Your task to perform on an android device: create a new album in the google photos Image 0: 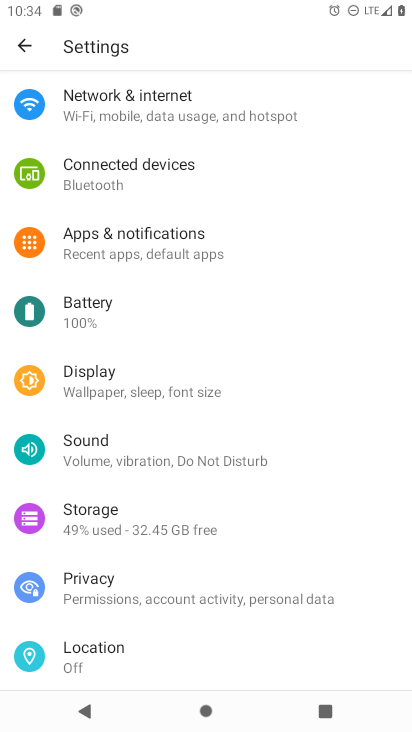
Step 0: press home button
Your task to perform on an android device: create a new album in the google photos Image 1: 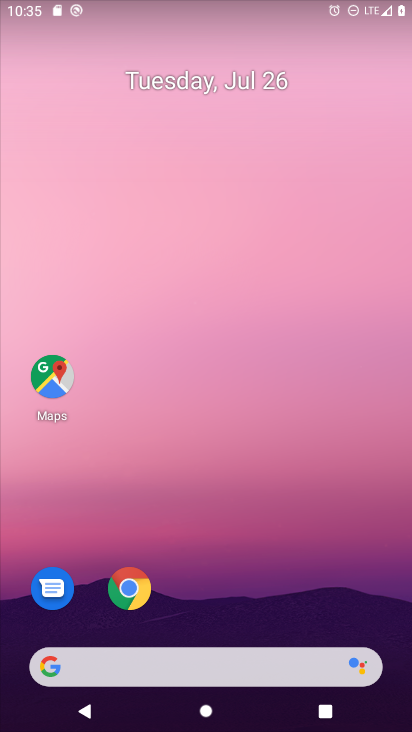
Step 1: drag from (234, 656) to (245, 94)
Your task to perform on an android device: create a new album in the google photos Image 2: 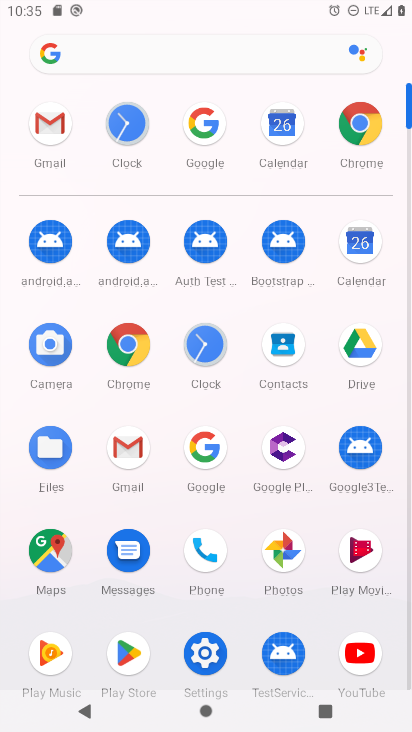
Step 2: click (275, 558)
Your task to perform on an android device: create a new album in the google photos Image 3: 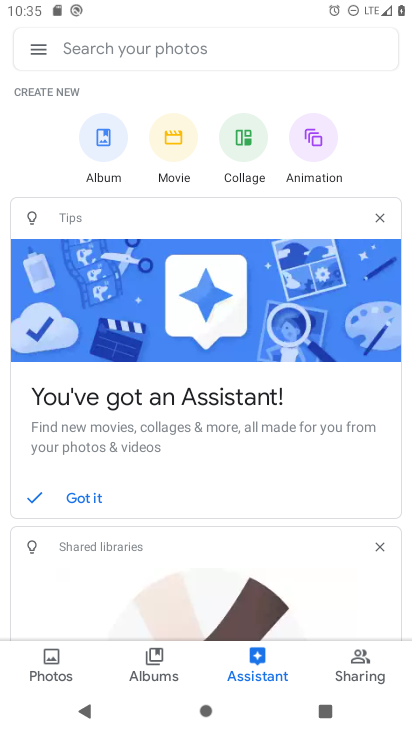
Step 3: click (55, 662)
Your task to perform on an android device: create a new album in the google photos Image 4: 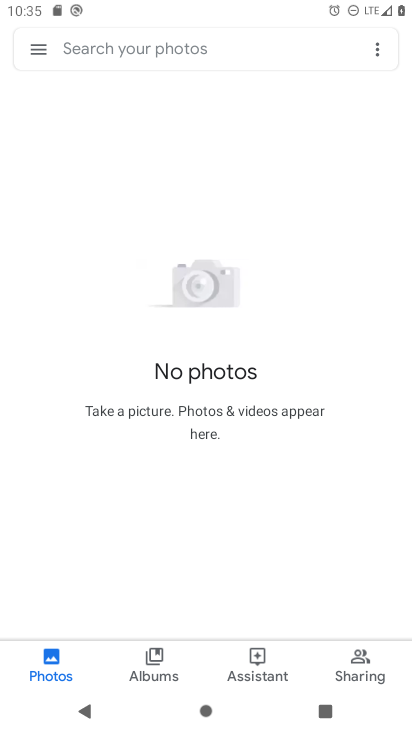
Step 4: click (155, 673)
Your task to perform on an android device: create a new album in the google photos Image 5: 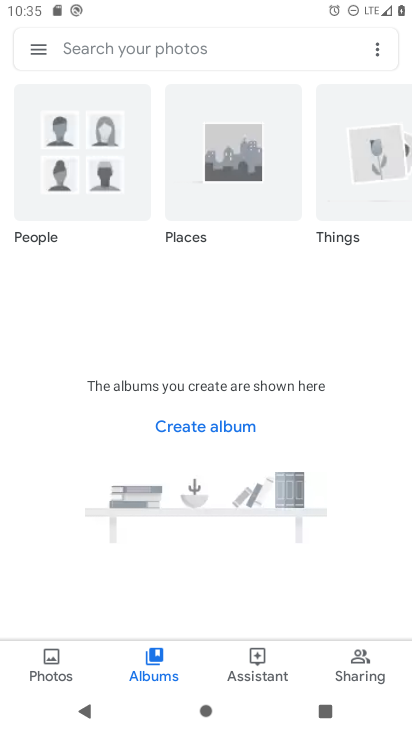
Step 5: click (212, 427)
Your task to perform on an android device: create a new album in the google photos Image 6: 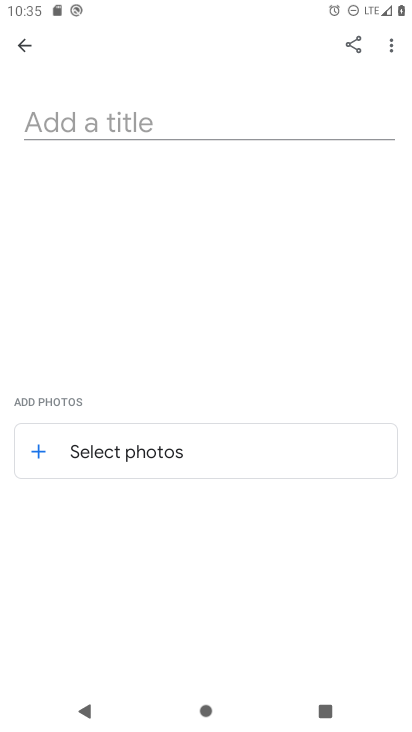
Step 6: click (54, 455)
Your task to perform on an android device: create a new album in the google photos Image 7: 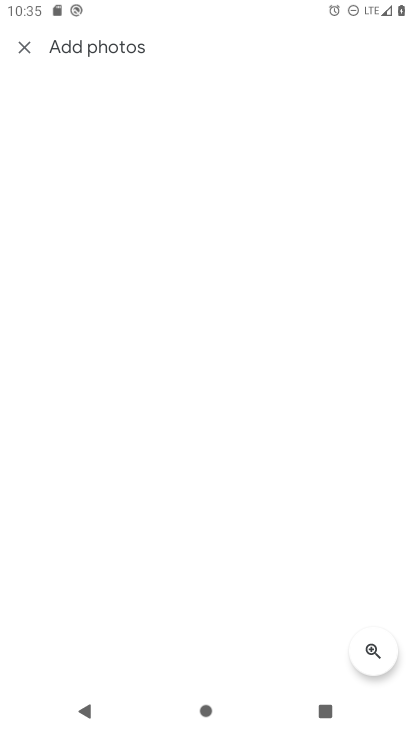
Step 7: click (54, 455)
Your task to perform on an android device: create a new album in the google photos Image 8: 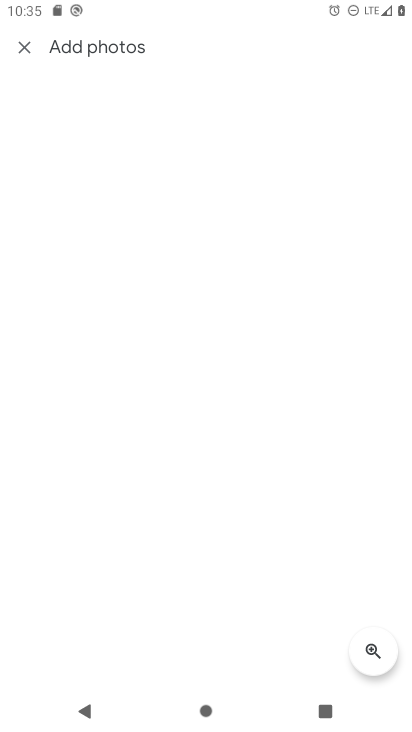
Step 8: task complete